Your task to perform on an android device: open a bookmark in the chrome app Image 0: 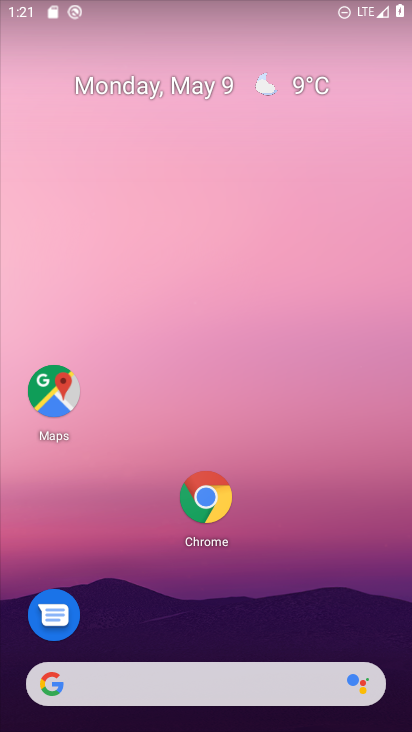
Step 0: drag from (302, 548) to (306, 130)
Your task to perform on an android device: open a bookmark in the chrome app Image 1: 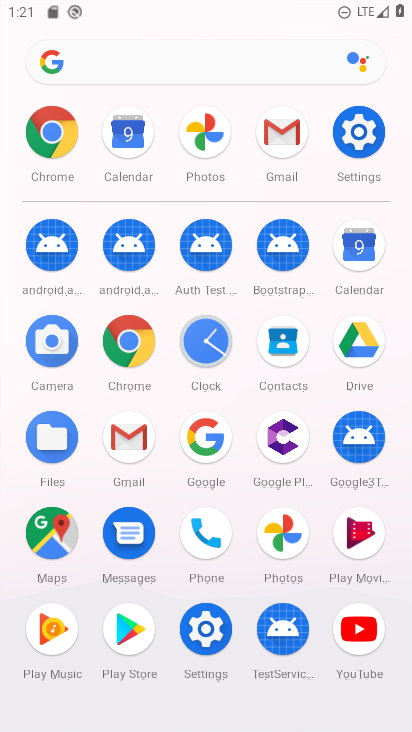
Step 1: click (133, 348)
Your task to perform on an android device: open a bookmark in the chrome app Image 2: 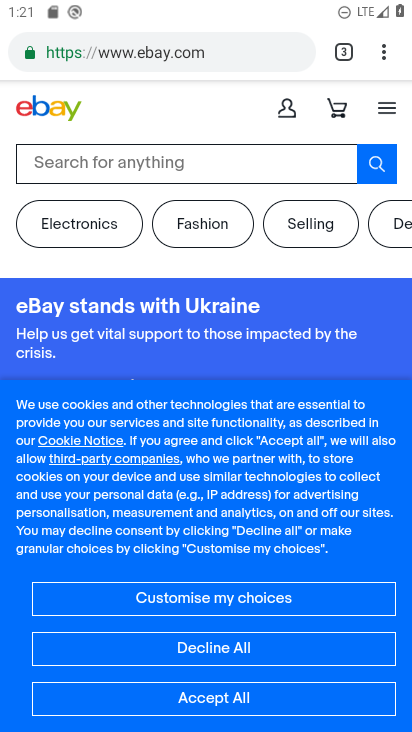
Step 2: drag from (383, 44) to (229, 210)
Your task to perform on an android device: open a bookmark in the chrome app Image 3: 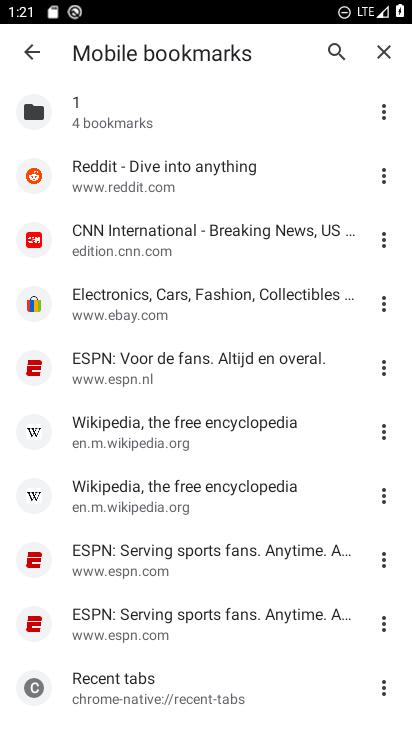
Step 3: click (205, 188)
Your task to perform on an android device: open a bookmark in the chrome app Image 4: 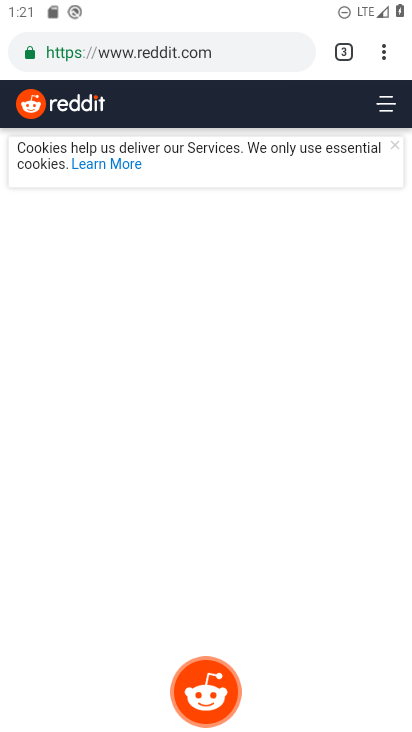
Step 4: task complete